Your task to perform on an android device: add a label to a message in the gmail app Image 0: 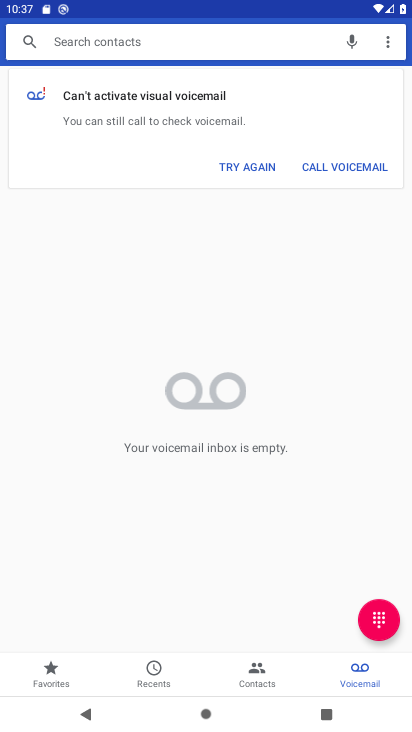
Step 0: press home button
Your task to perform on an android device: add a label to a message in the gmail app Image 1: 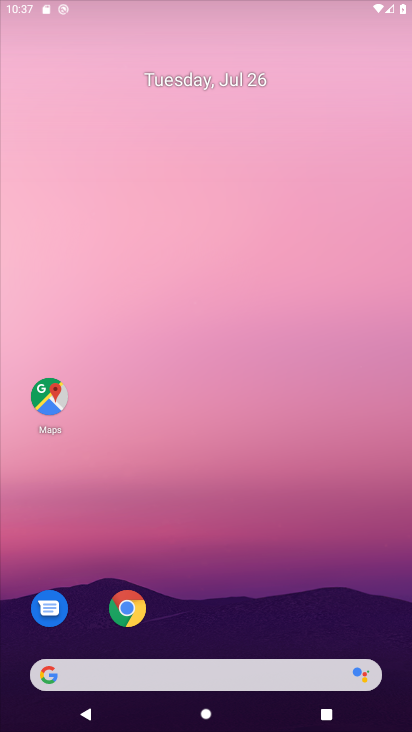
Step 1: drag from (280, 663) to (293, 31)
Your task to perform on an android device: add a label to a message in the gmail app Image 2: 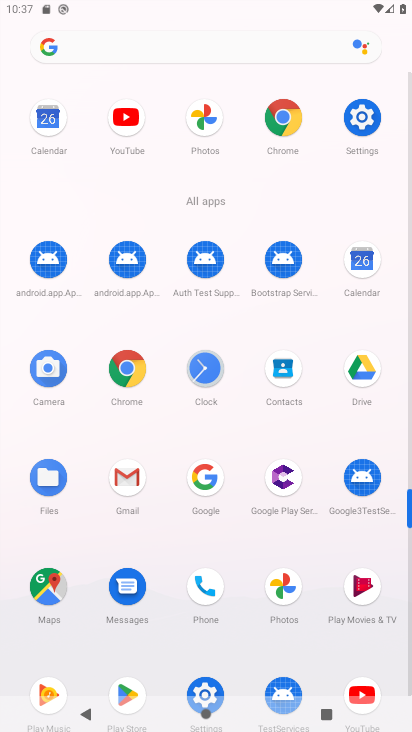
Step 2: click (125, 485)
Your task to perform on an android device: add a label to a message in the gmail app Image 3: 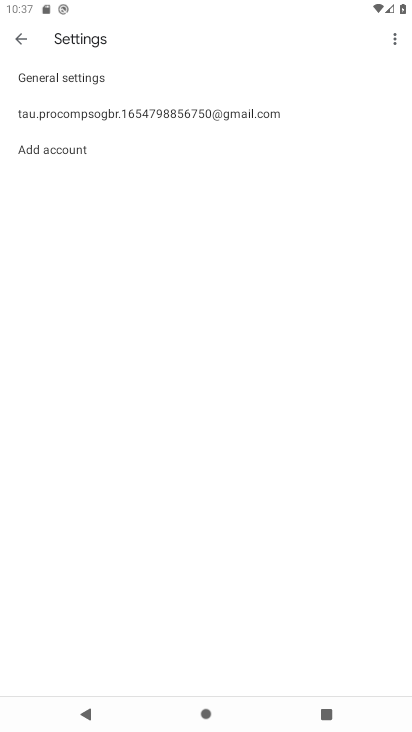
Step 3: click (26, 37)
Your task to perform on an android device: add a label to a message in the gmail app Image 4: 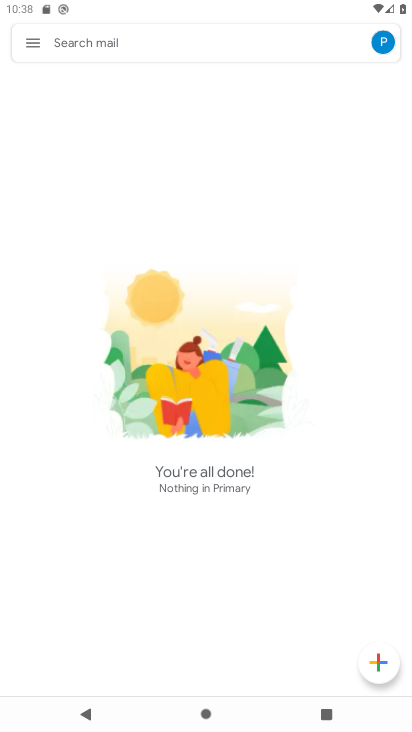
Step 4: click (25, 39)
Your task to perform on an android device: add a label to a message in the gmail app Image 5: 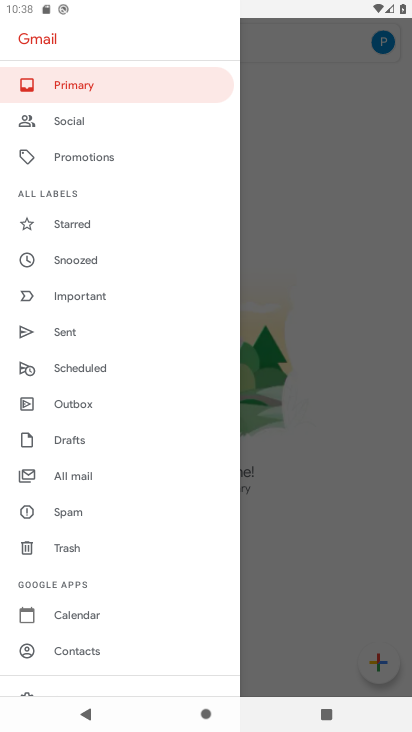
Step 5: click (65, 474)
Your task to perform on an android device: add a label to a message in the gmail app Image 6: 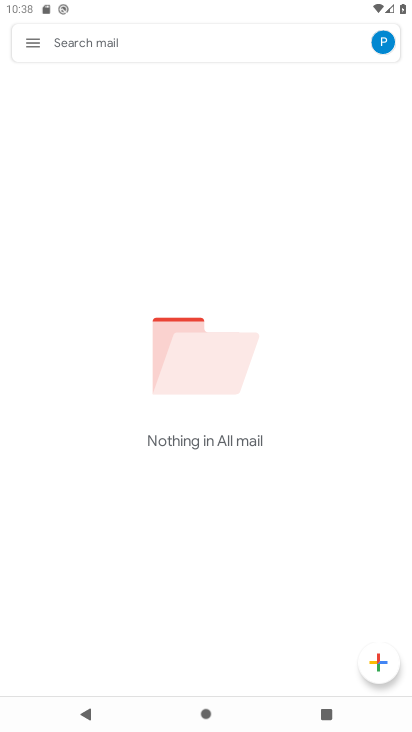
Step 6: task complete